Your task to perform on an android device: find which apps use the phone's location Image 0: 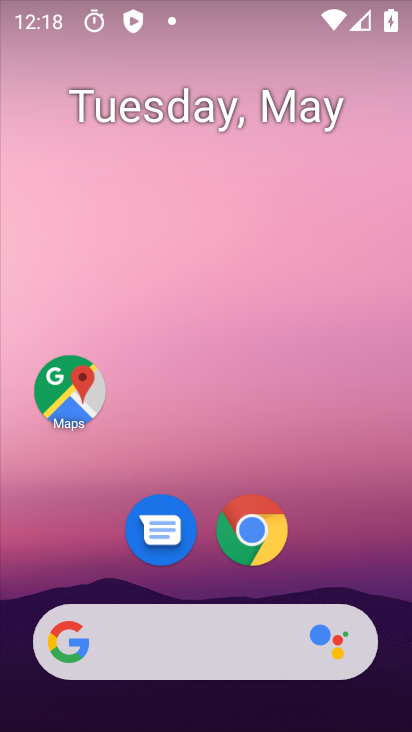
Step 0: drag from (338, 485) to (274, 15)
Your task to perform on an android device: find which apps use the phone's location Image 1: 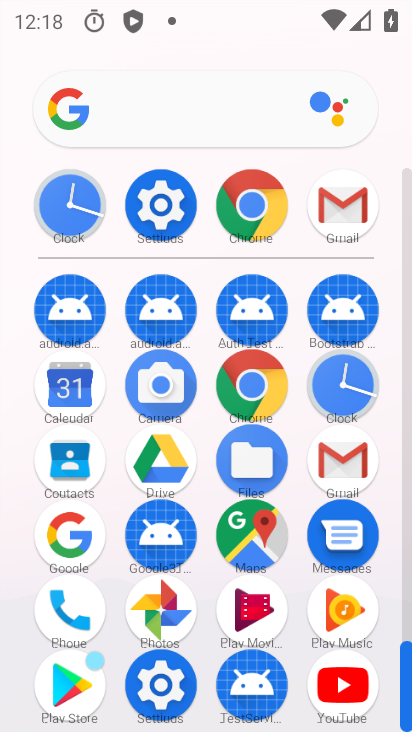
Step 1: drag from (11, 662) to (26, 344)
Your task to perform on an android device: find which apps use the phone's location Image 2: 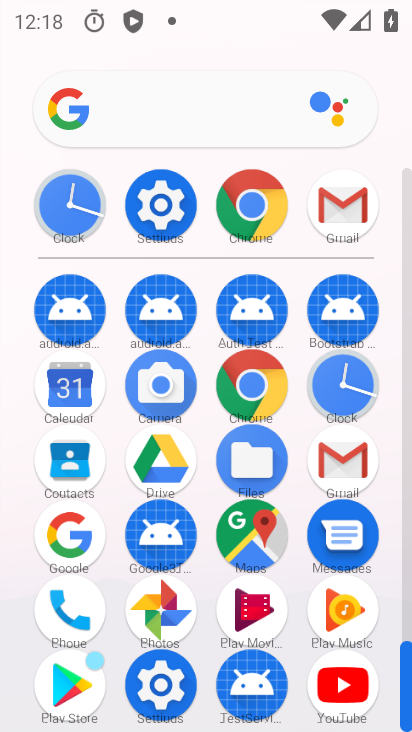
Step 2: click (153, 687)
Your task to perform on an android device: find which apps use the phone's location Image 3: 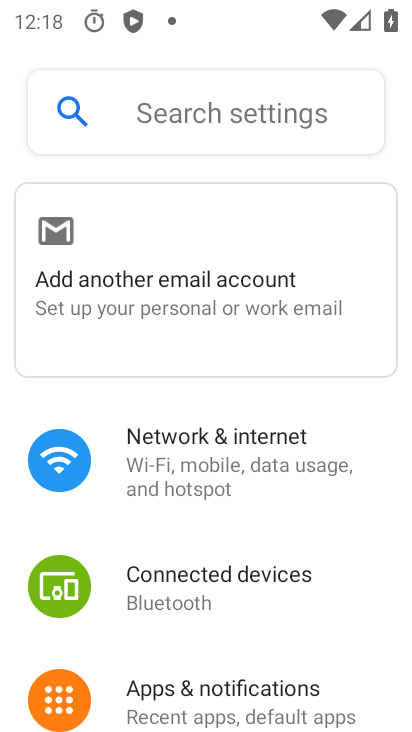
Step 3: drag from (332, 625) to (340, 232)
Your task to perform on an android device: find which apps use the phone's location Image 4: 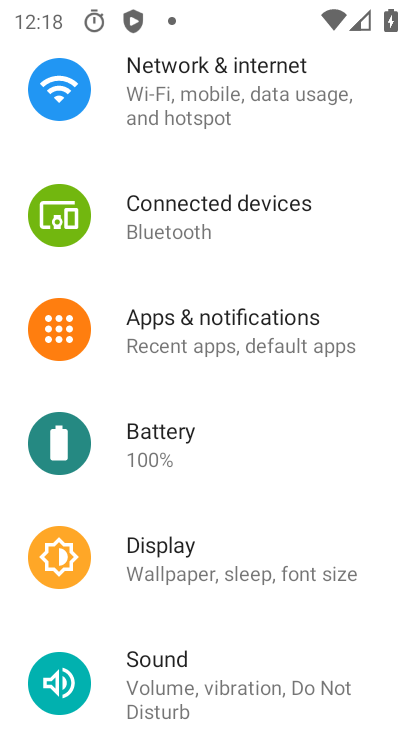
Step 4: drag from (209, 599) to (277, 210)
Your task to perform on an android device: find which apps use the phone's location Image 5: 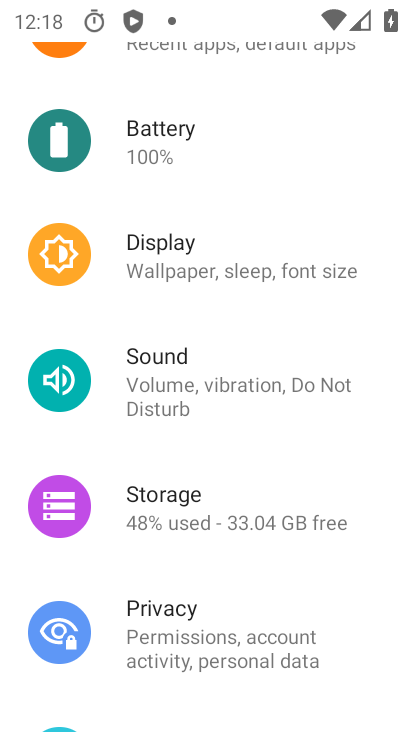
Step 5: drag from (279, 574) to (277, 151)
Your task to perform on an android device: find which apps use the phone's location Image 6: 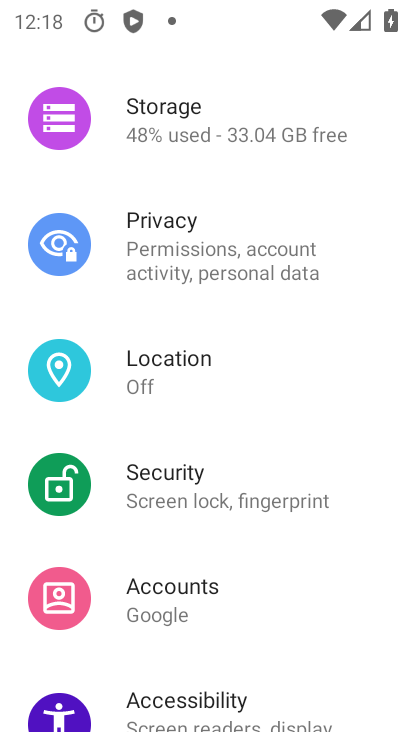
Step 6: click (165, 364)
Your task to perform on an android device: find which apps use the phone's location Image 7: 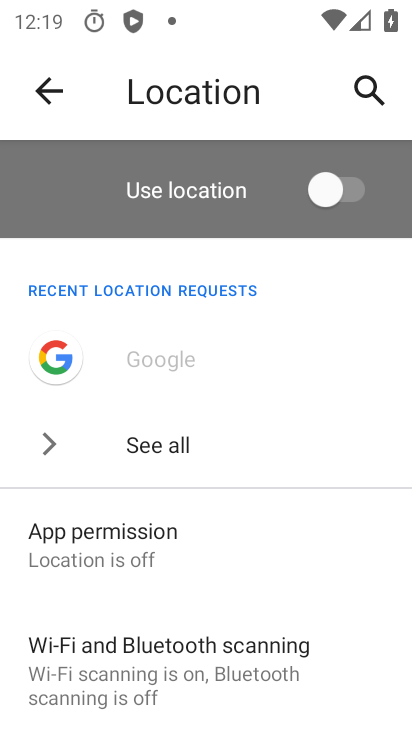
Step 7: click (131, 567)
Your task to perform on an android device: find which apps use the phone's location Image 8: 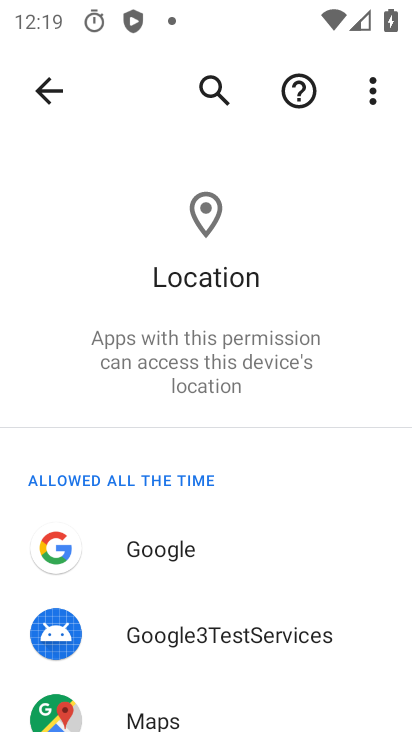
Step 8: task complete